Your task to perform on an android device: snooze an email in the gmail app Image 0: 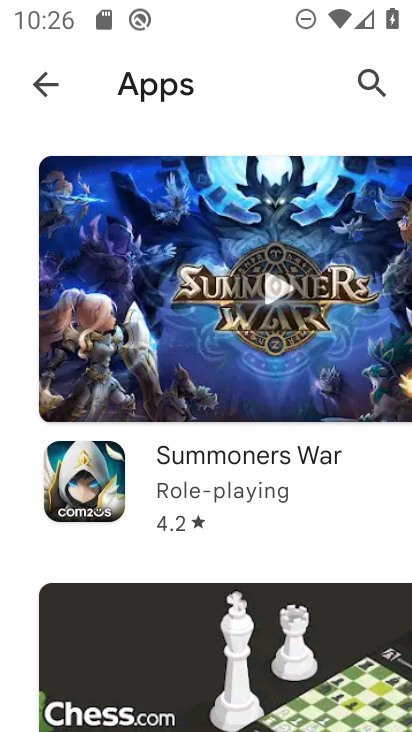
Step 0: press home button
Your task to perform on an android device: snooze an email in the gmail app Image 1: 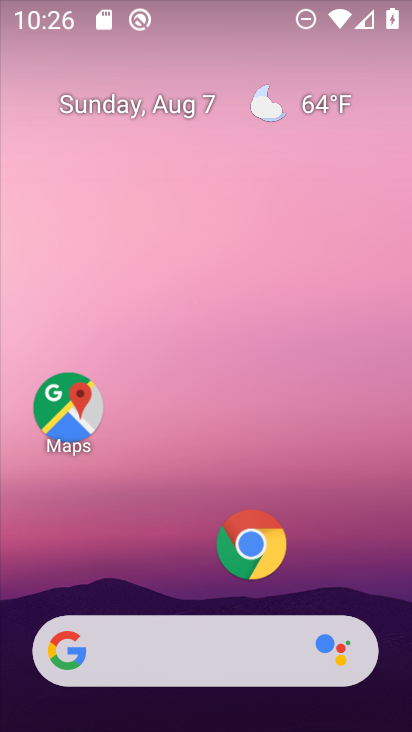
Step 1: drag from (192, 609) to (348, 112)
Your task to perform on an android device: snooze an email in the gmail app Image 2: 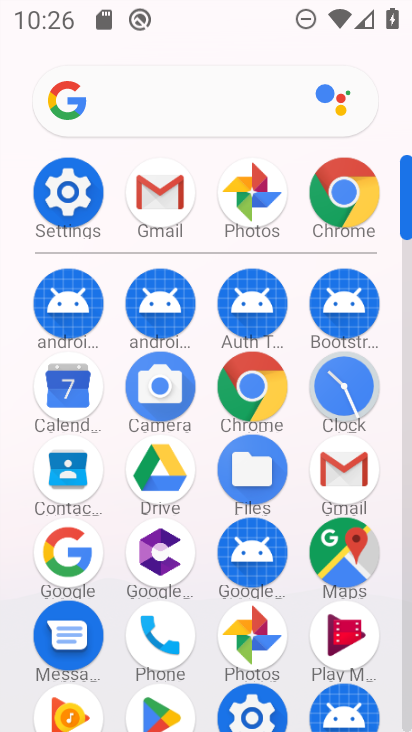
Step 2: click (73, 208)
Your task to perform on an android device: snooze an email in the gmail app Image 3: 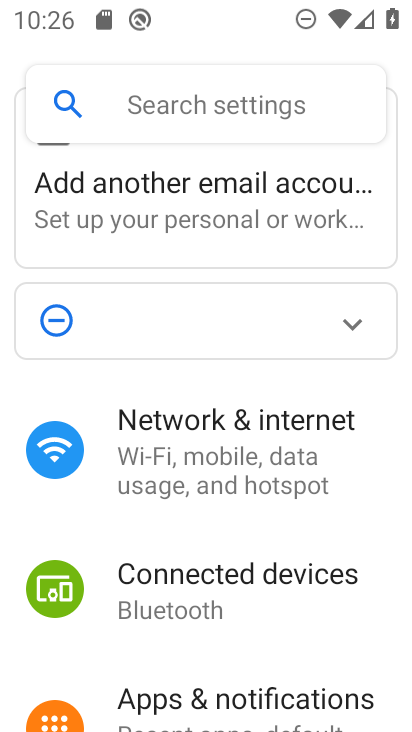
Step 3: press home button
Your task to perform on an android device: snooze an email in the gmail app Image 4: 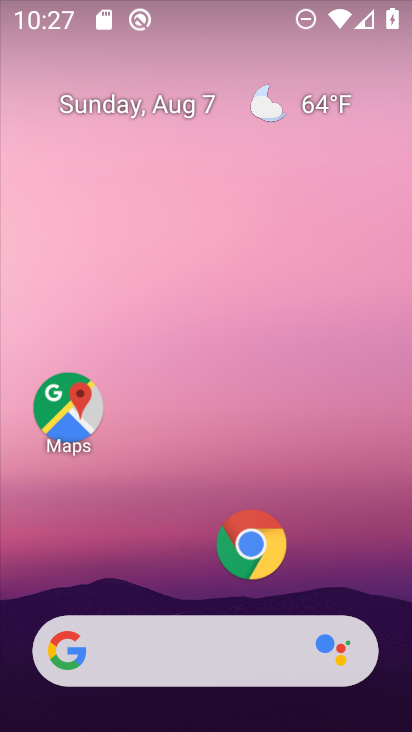
Step 4: drag from (211, 588) to (342, 721)
Your task to perform on an android device: snooze an email in the gmail app Image 5: 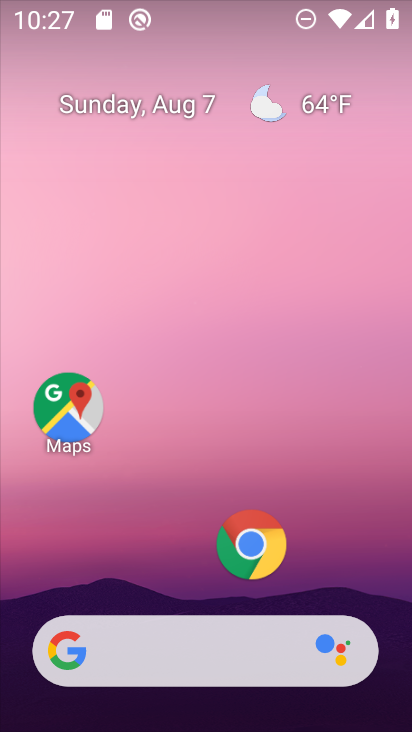
Step 5: drag from (227, 643) to (280, 172)
Your task to perform on an android device: snooze an email in the gmail app Image 6: 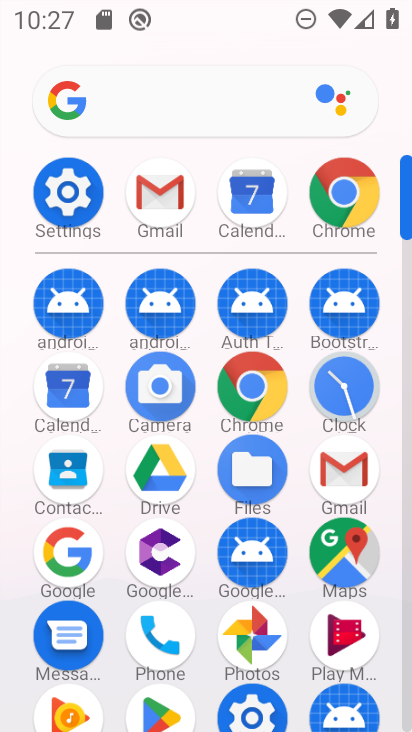
Step 6: click (344, 473)
Your task to perform on an android device: snooze an email in the gmail app Image 7: 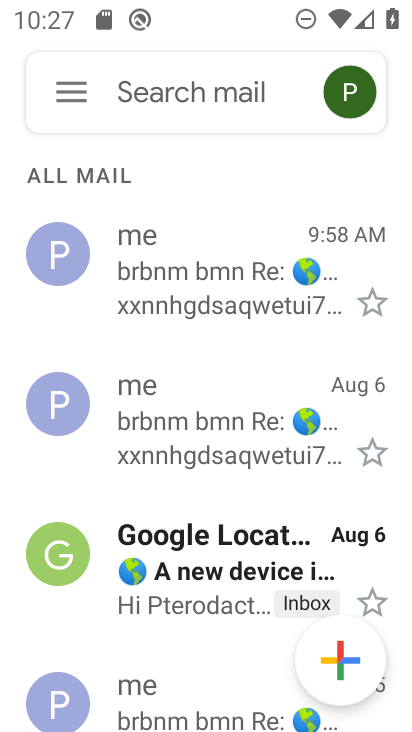
Step 7: click (55, 94)
Your task to perform on an android device: snooze an email in the gmail app Image 8: 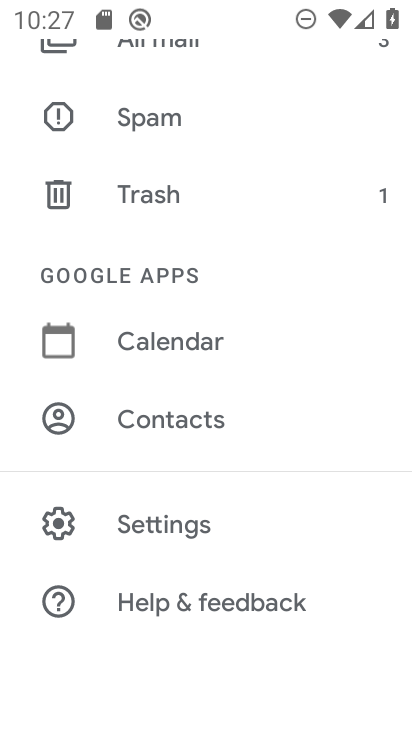
Step 8: drag from (118, 163) to (60, 731)
Your task to perform on an android device: snooze an email in the gmail app Image 9: 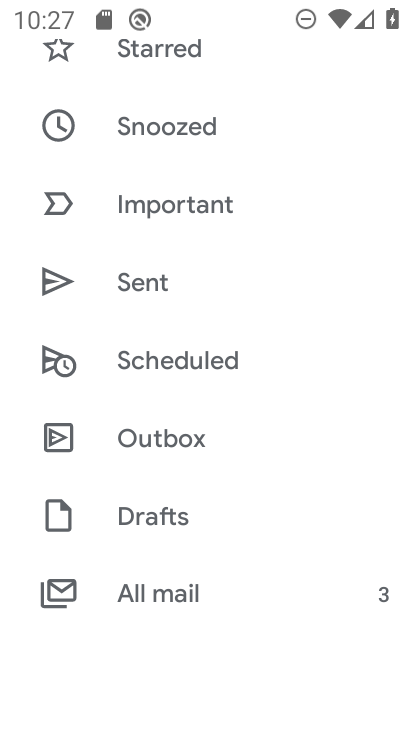
Step 9: drag from (160, 121) to (127, 722)
Your task to perform on an android device: snooze an email in the gmail app Image 10: 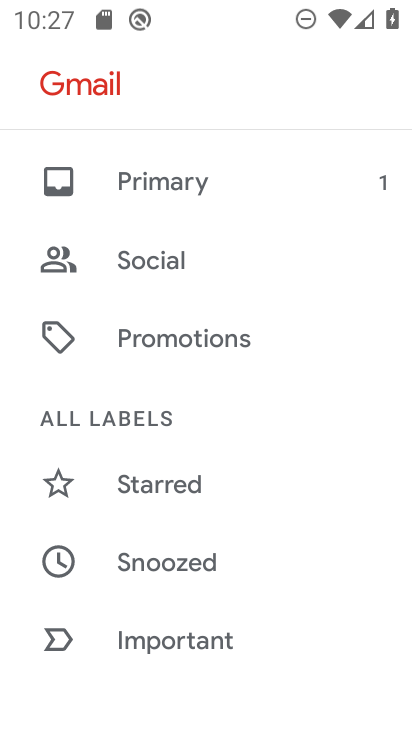
Step 10: click (131, 206)
Your task to perform on an android device: snooze an email in the gmail app Image 11: 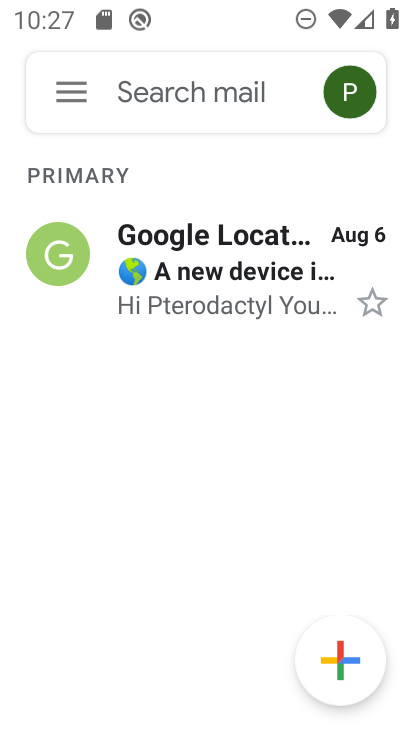
Step 11: click (156, 252)
Your task to perform on an android device: snooze an email in the gmail app Image 12: 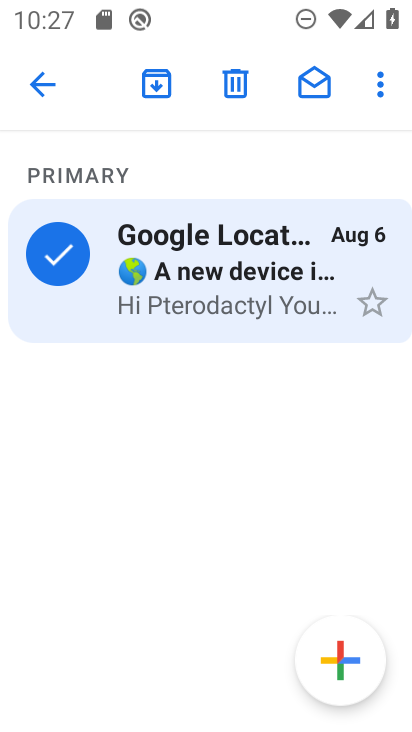
Step 12: click (387, 86)
Your task to perform on an android device: snooze an email in the gmail app Image 13: 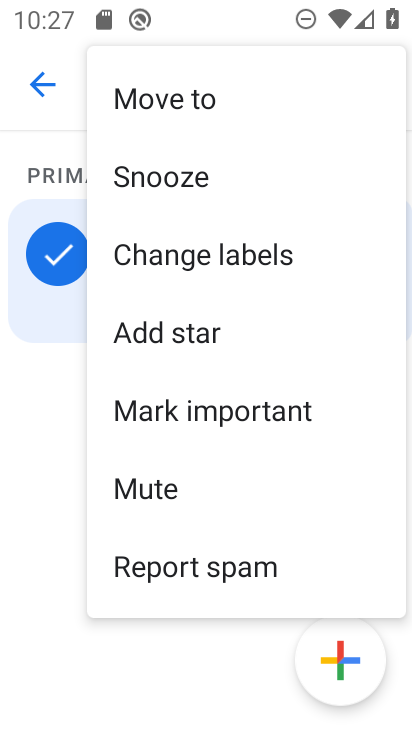
Step 13: click (154, 177)
Your task to perform on an android device: snooze an email in the gmail app Image 14: 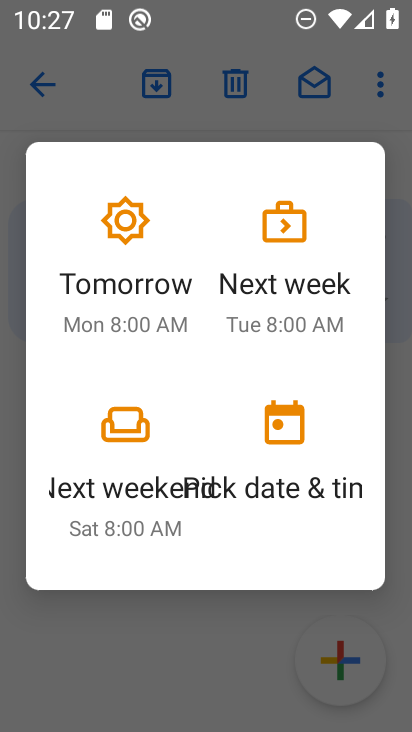
Step 14: click (247, 252)
Your task to perform on an android device: snooze an email in the gmail app Image 15: 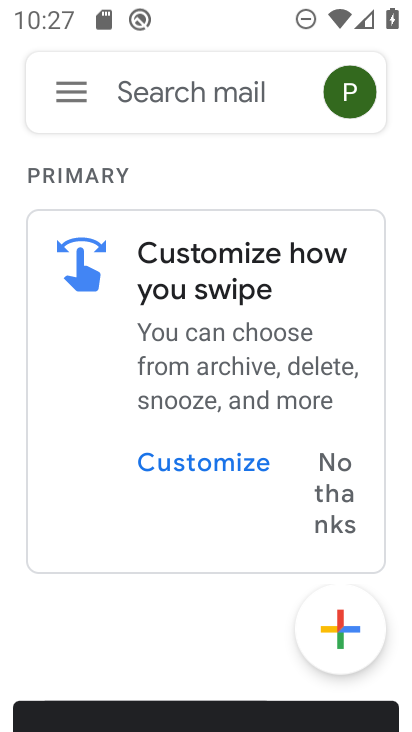
Step 15: task complete